Your task to perform on an android device: Go to network settings Image 0: 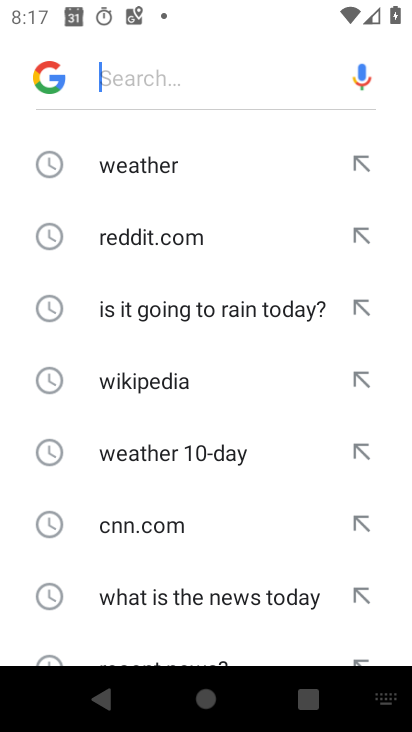
Step 0: press home button
Your task to perform on an android device: Go to network settings Image 1: 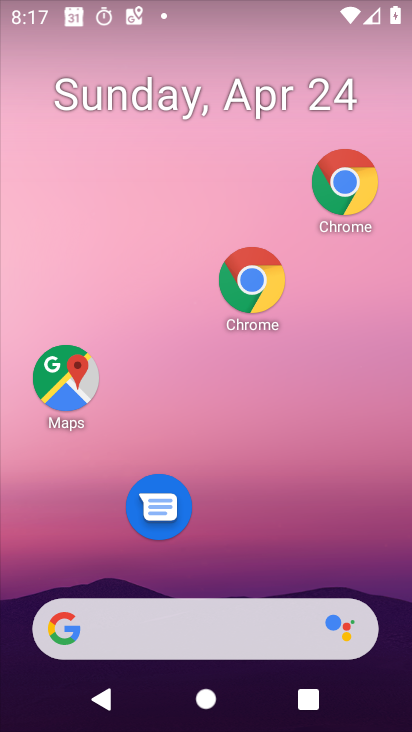
Step 1: drag from (265, 691) to (397, 558)
Your task to perform on an android device: Go to network settings Image 2: 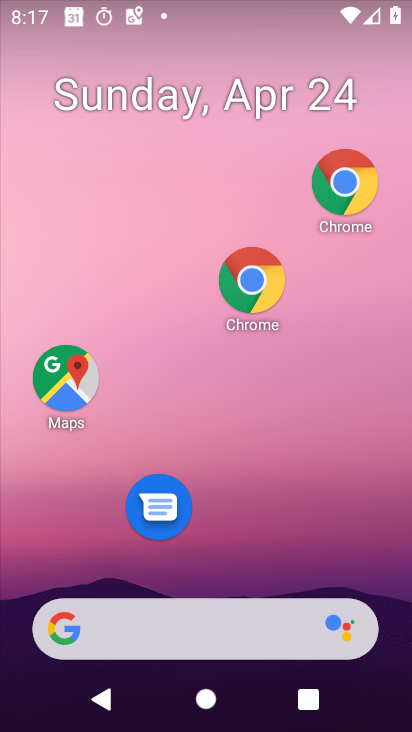
Step 2: drag from (275, 687) to (190, 84)
Your task to perform on an android device: Go to network settings Image 3: 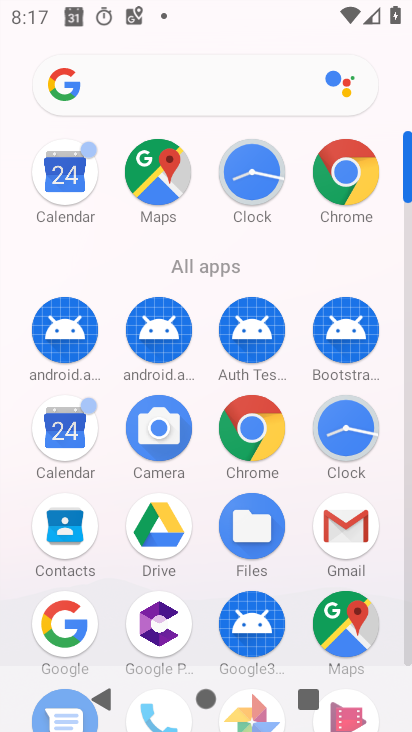
Step 3: drag from (283, 591) to (269, 238)
Your task to perform on an android device: Go to network settings Image 4: 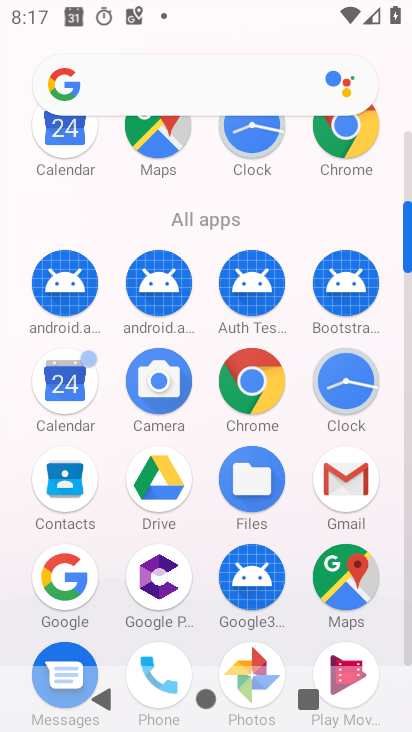
Step 4: drag from (293, 520) to (251, 47)
Your task to perform on an android device: Go to network settings Image 5: 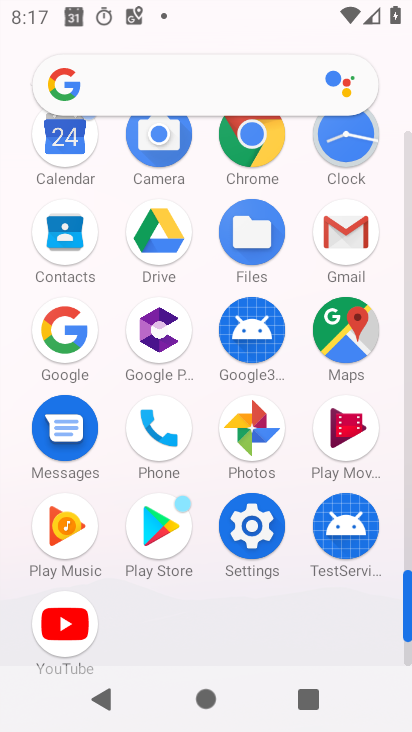
Step 5: click (260, 518)
Your task to perform on an android device: Go to network settings Image 6: 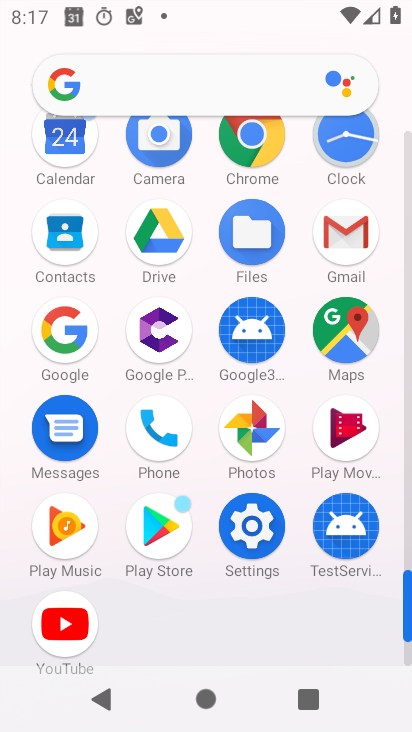
Step 6: click (258, 514)
Your task to perform on an android device: Go to network settings Image 7: 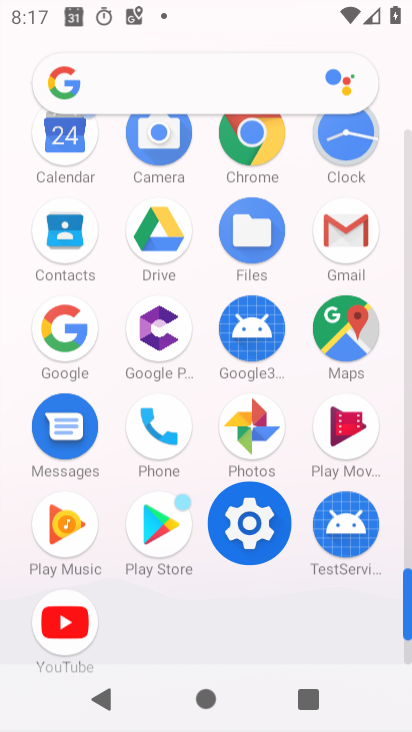
Step 7: click (248, 506)
Your task to perform on an android device: Go to network settings Image 8: 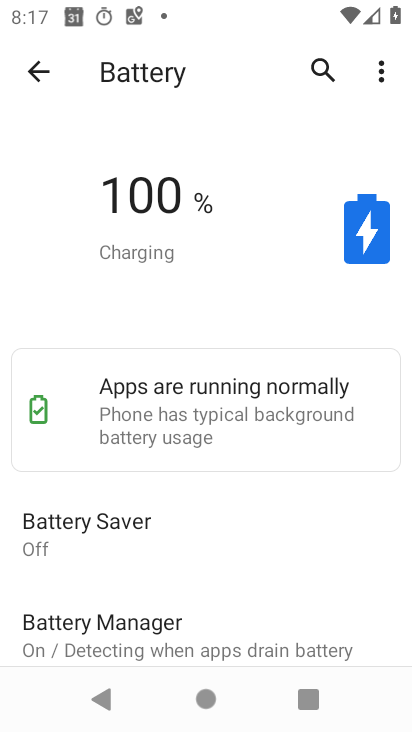
Step 8: click (34, 72)
Your task to perform on an android device: Go to network settings Image 9: 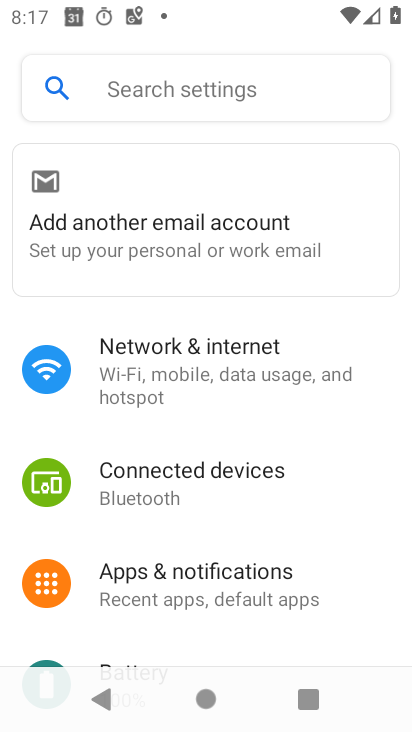
Step 9: click (219, 362)
Your task to perform on an android device: Go to network settings Image 10: 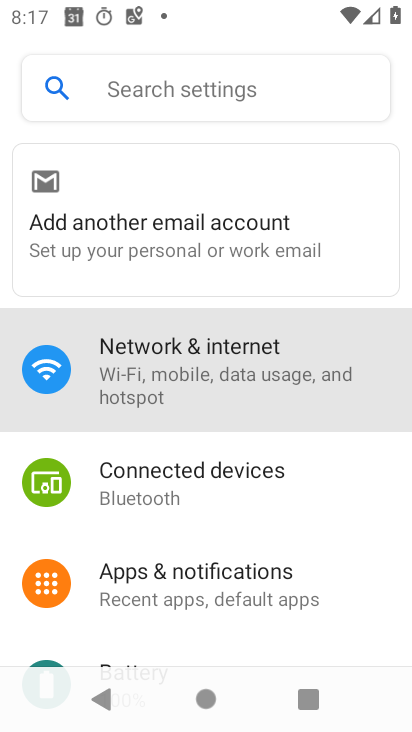
Step 10: click (225, 358)
Your task to perform on an android device: Go to network settings Image 11: 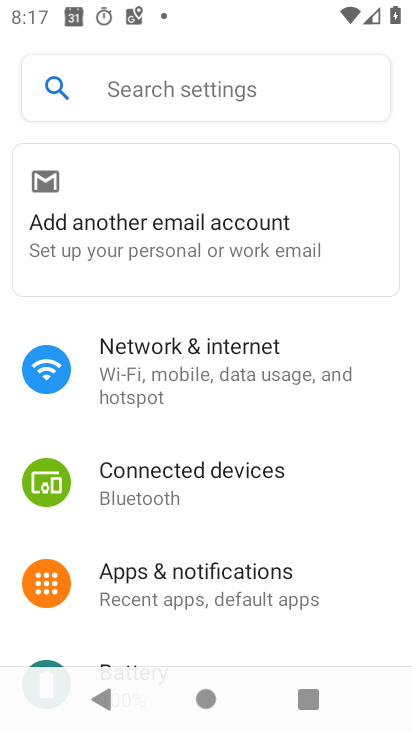
Step 11: click (225, 358)
Your task to perform on an android device: Go to network settings Image 12: 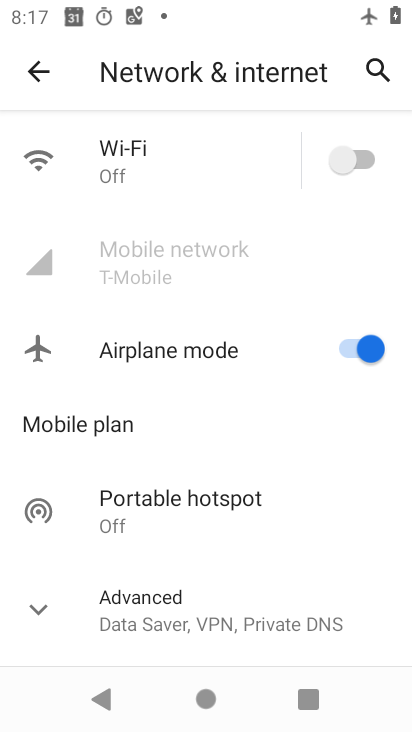
Step 12: task complete